Your task to perform on an android device: Go to Amazon Image 0: 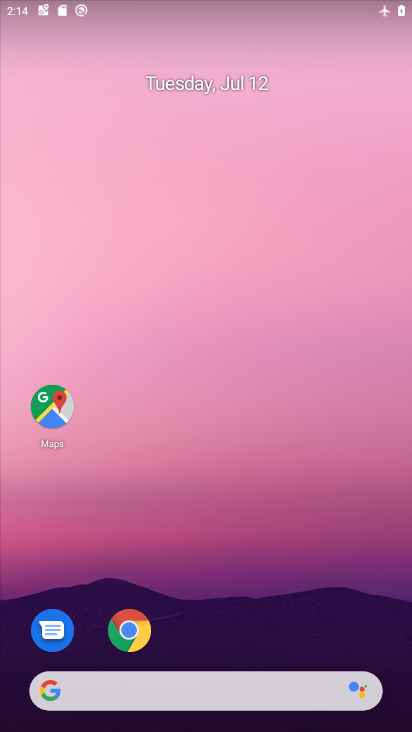
Step 0: drag from (219, 587) to (358, 153)
Your task to perform on an android device: Go to Amazon Image 1: 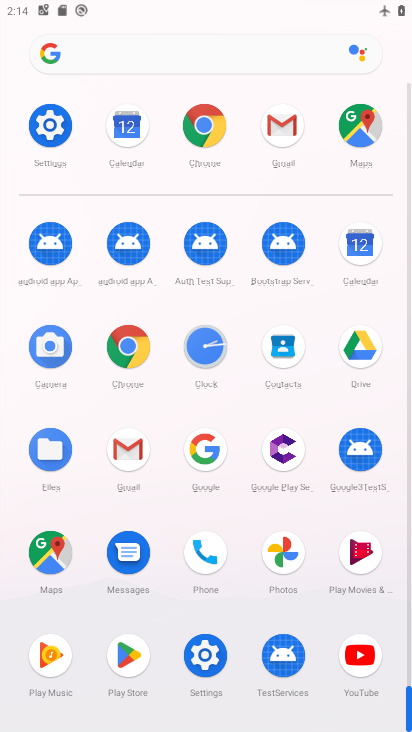
Step 1: drag from (175, 465) to (263, 233)
Your task to perform on an android device: Go to Amazon Image 2: 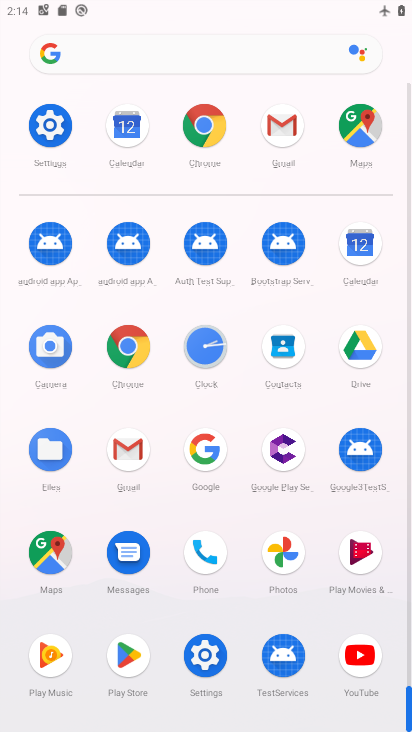
Step 2: click (132, 357)
Your task to perform on an android device: Go to Amazon Image 3: 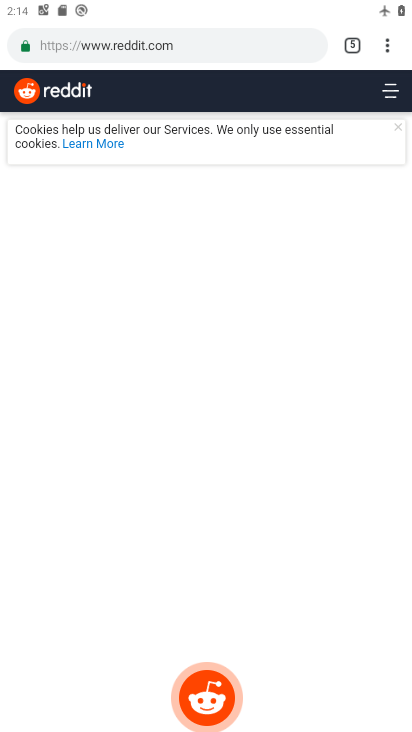
Step 3: click (320, 283)
Your task to perform on an android device: Go to Amazon Image 4: 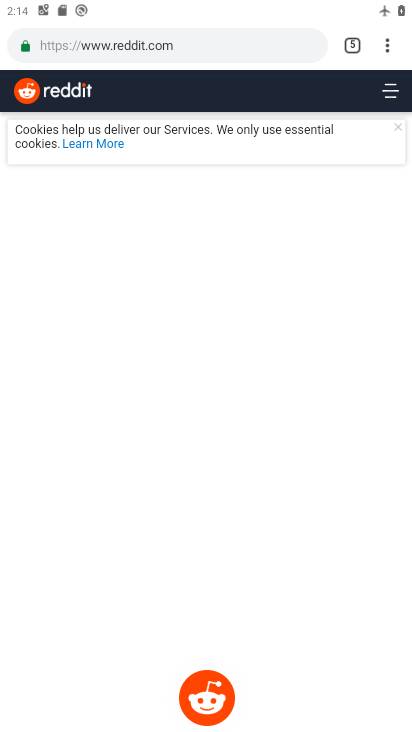
Step 4: click (240, 36)
Your task to perform on an android device: Go to Amazon Image 5: 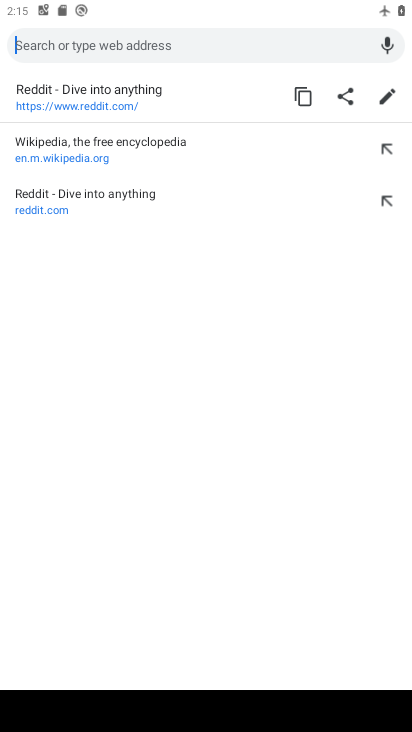
Step 5: type "amazon"
Your task to perform on an android device: Go to Amazon Image 6: 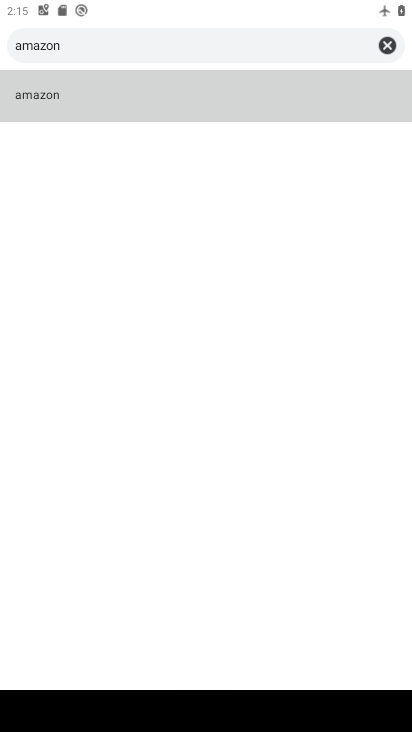
Step 6: click (150, 87)
Your task to perform on an android device: Go to Amazon Image 7: 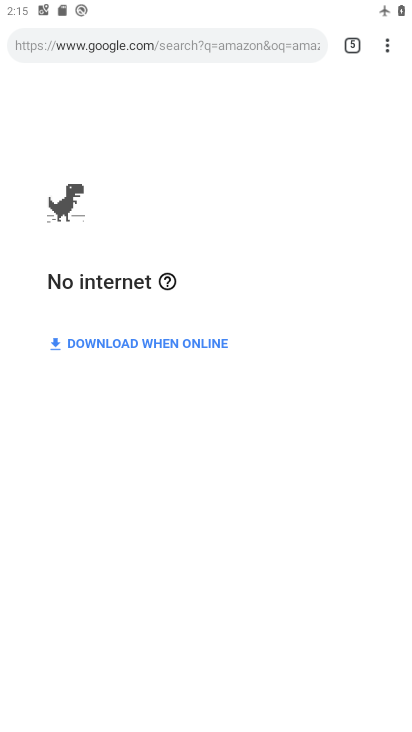
Step 7: task complete